Your task to perform on an android device: find snoozed emails in the gmail app Image 0: 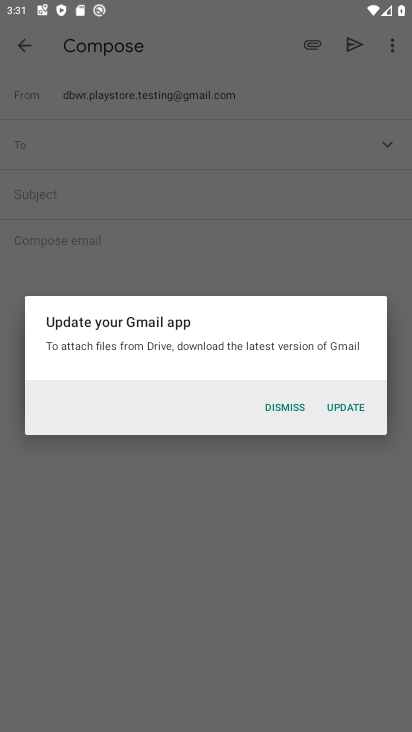
Step 0: press home button
Your task to perform on an android device: find snoozed emails in the gmail app Image 1: 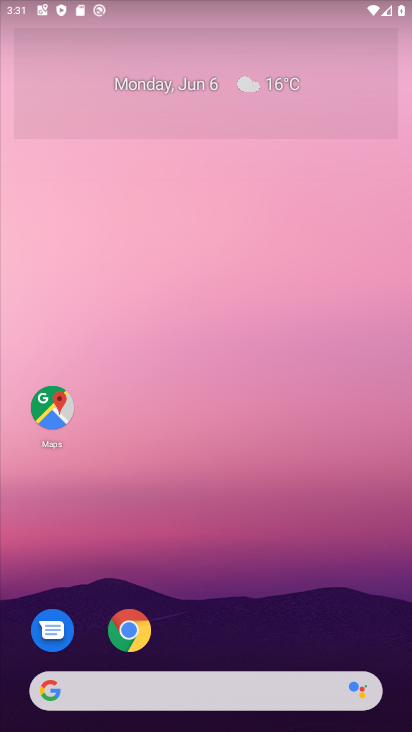
Step 1: drag from (227, 575) to (261, 106)
Your task to perform on an android device: find snoozed emails in the gmail app Image 2: 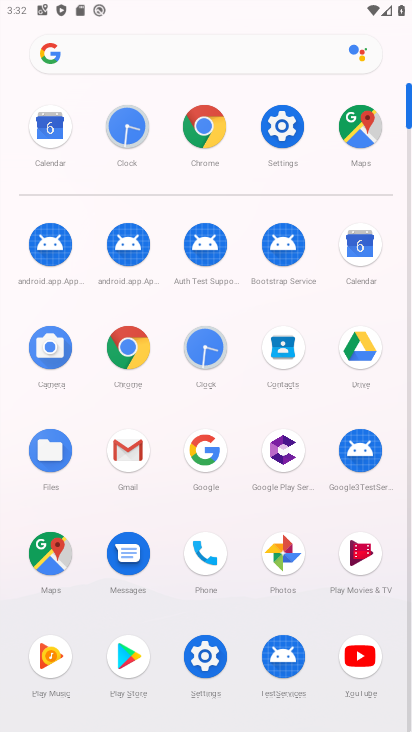
Step 2: click (146, 452)
Your task to perform on an android device: find snoozed emails in the gmail app Image 3: 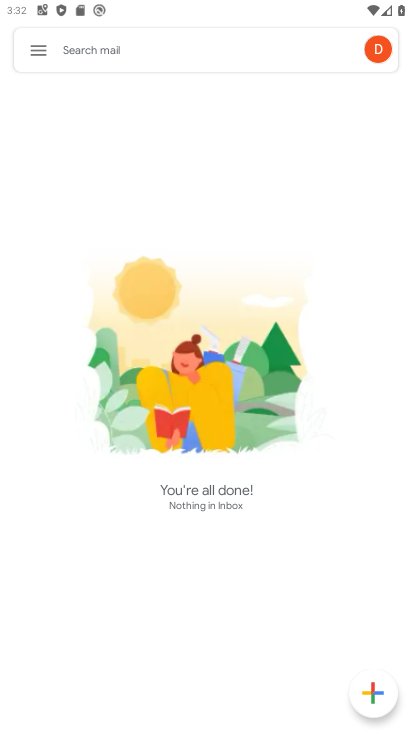
Step 3: click (43, 51)
Your task to perform on an android device: find snoozed emails in the gmail app Image 4: 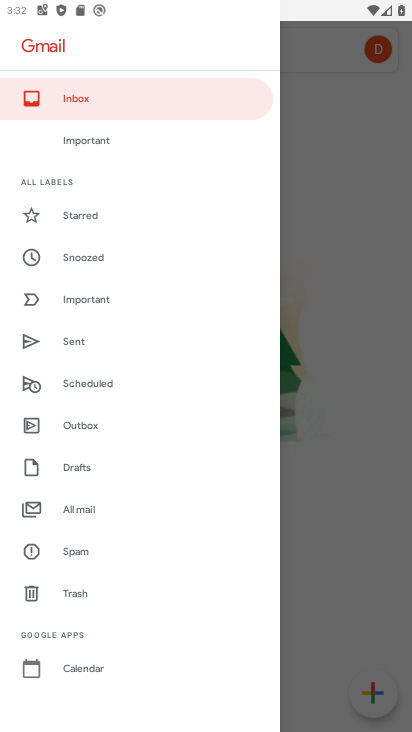
Step 4: click (99, 251)
Your task to perform on an android device: find snoozed emails in the gmail app Image 5: 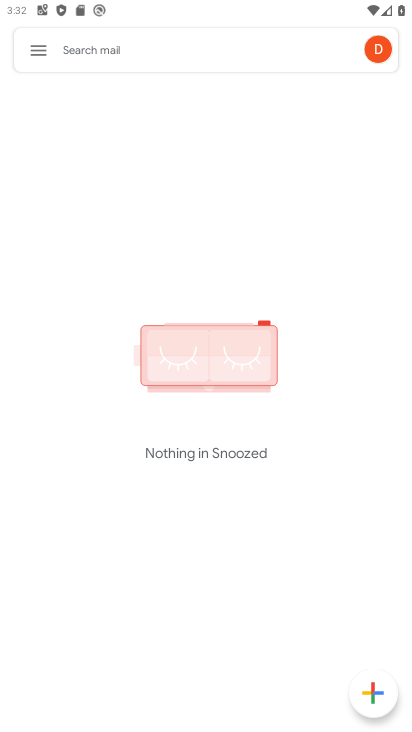
Step 5: task complete